Your task to perform on an android device: Turn on the flashlight Image 0: 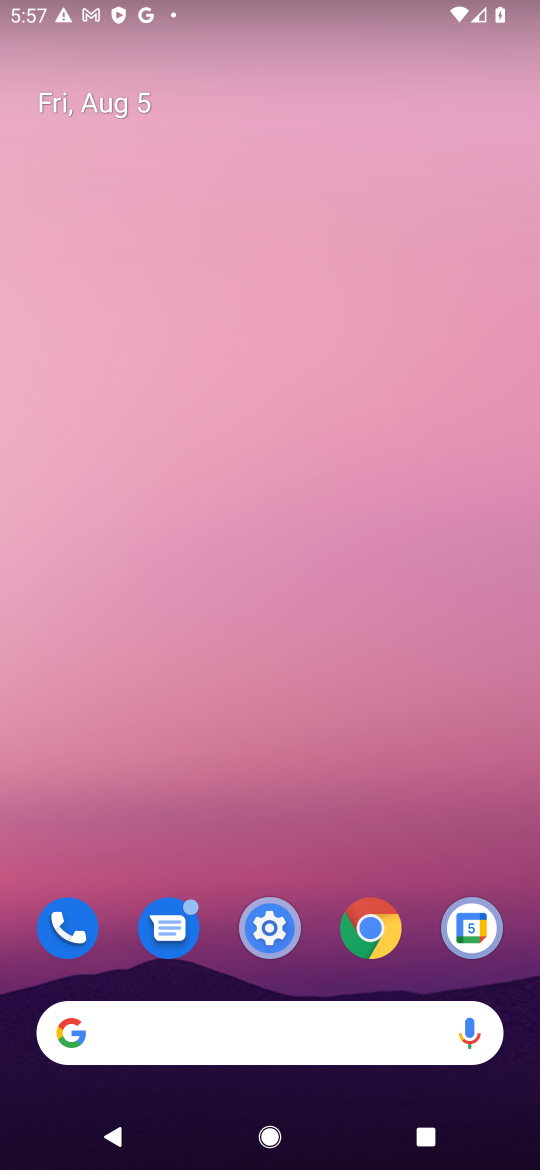
Step 0: drag from (298, 990) to (185, 8)
Your task to perform on an android device: Turn on the flashlight Image 1: 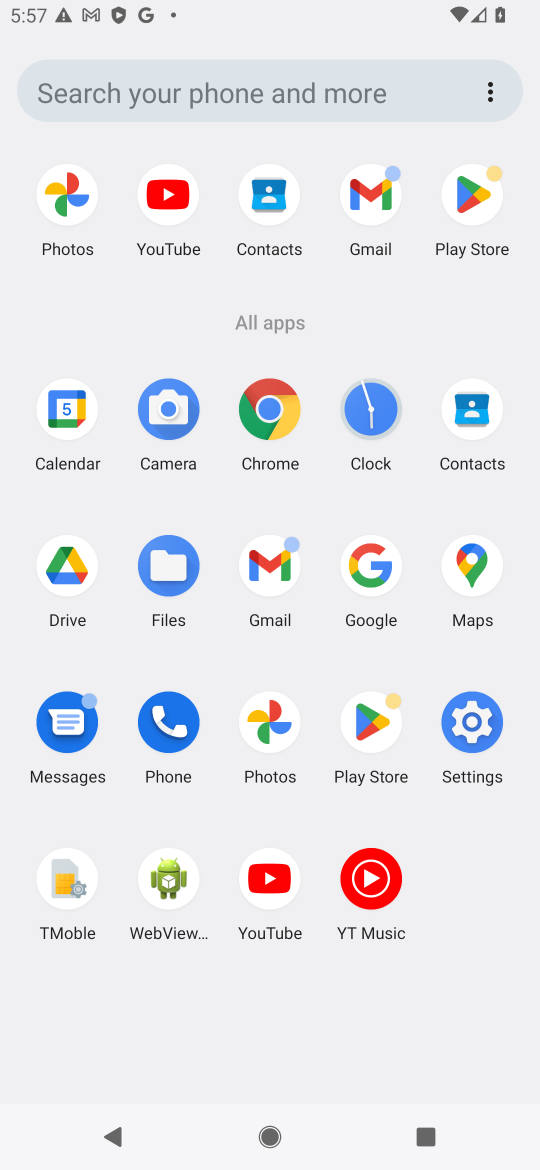
Step 1: click (455, 734)
Your task to perform on an android device: Turn on the flashlight Image 2: 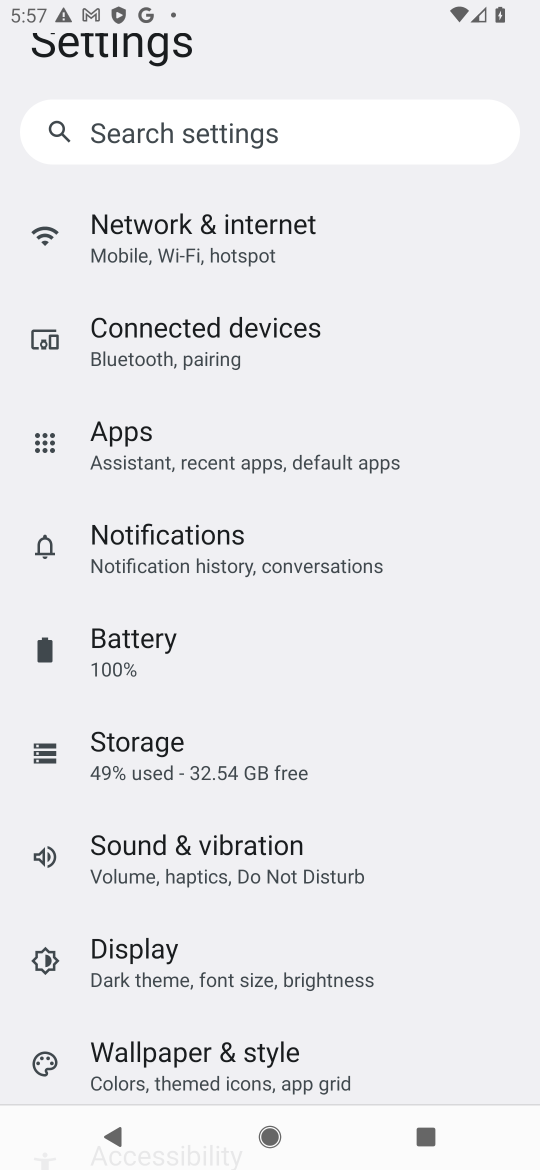
Step 2: click (171, 930)
Your task to perform on an android device: Turn on the flashlight Image 3: 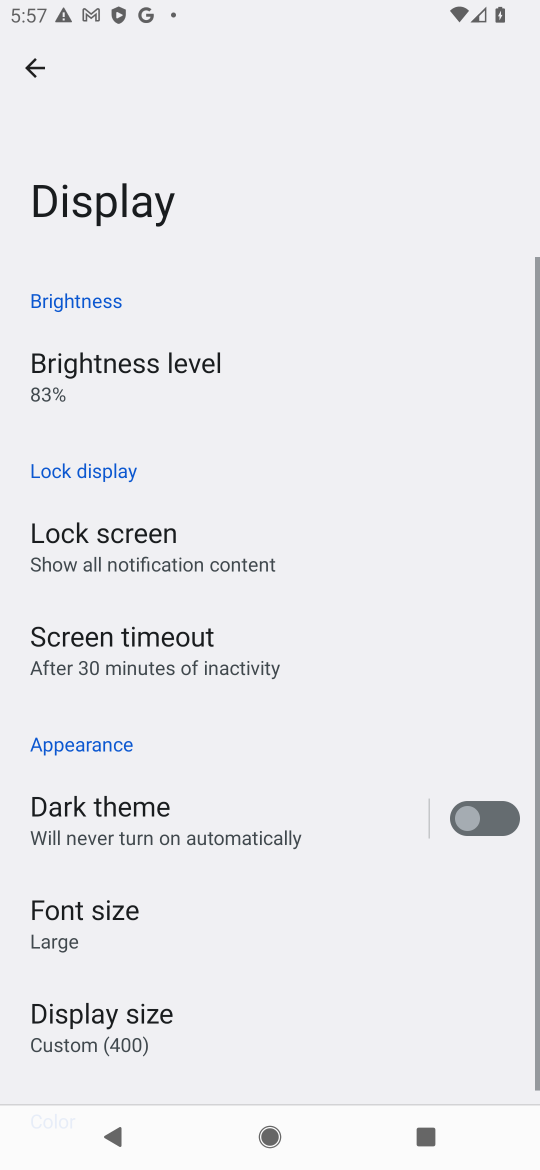
Step 3: task complete